Your task to perform on an android device: Open the calendar and show me this week's events? Image 0: 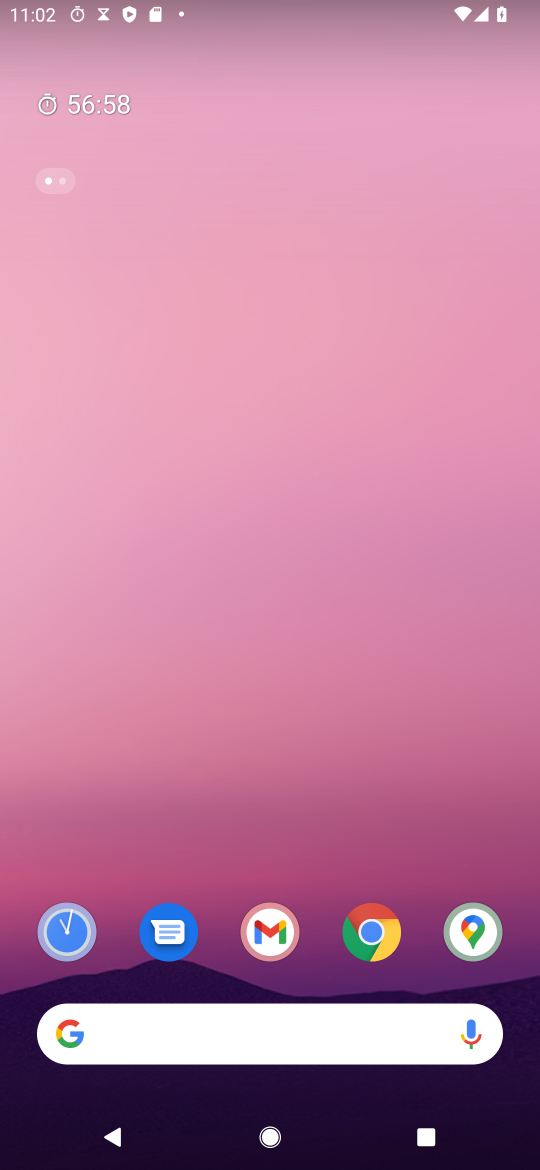
Step 0: drag from (449, 810) to (455, 13)
Your task to perform on an android device: Open the calendar and show me this week's events? Image 1: 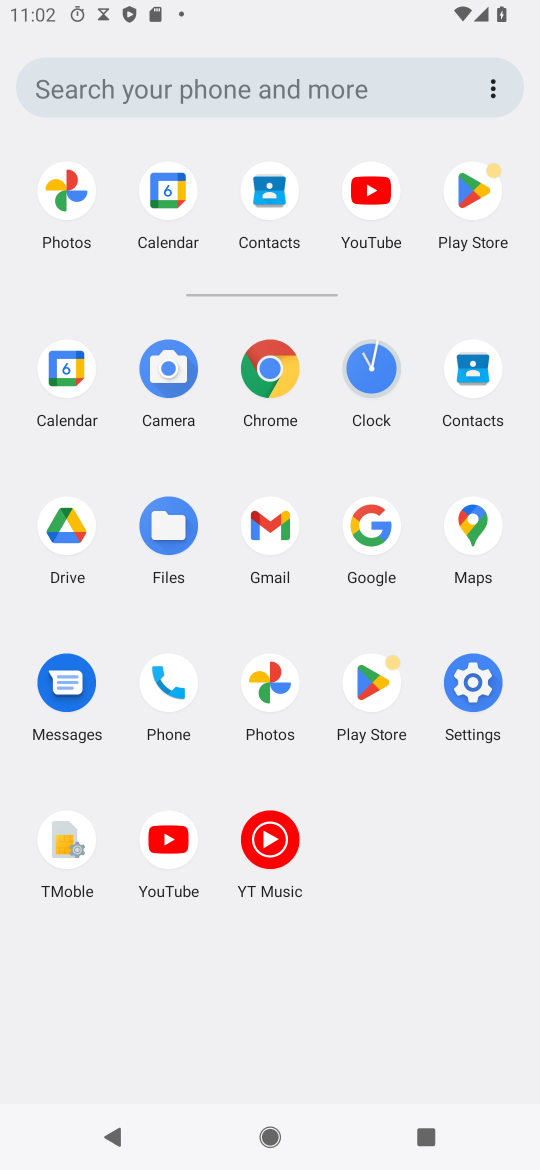
Step 1: click (65, 377)
Your task to perform on an android device: Open the calendar and show me this week's events? Image 2: 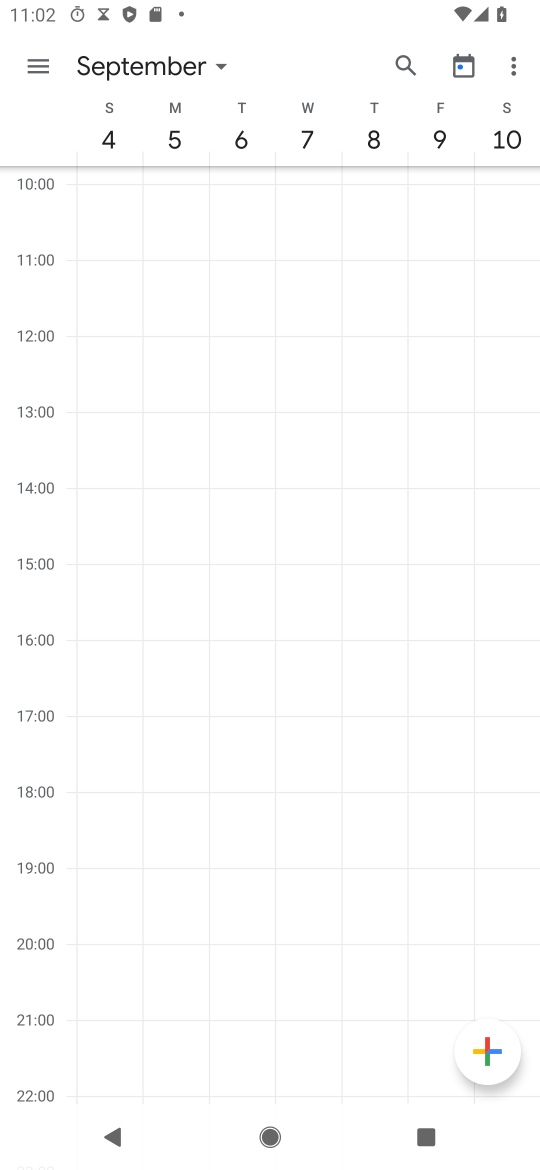
Step 2: click (33, 62)
Your task to perform on an android device: Open the calendar and show me this week's events? Image 3: 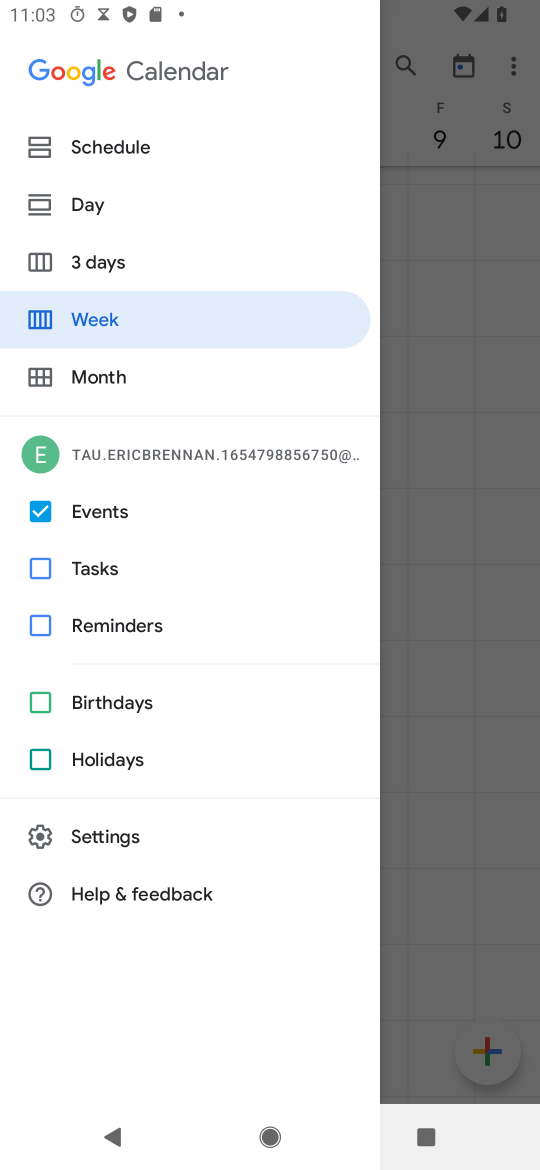
Step 3: click (92, 303)
Your task to perform on an android device: Open the calendar and show me this week's events? Image 4: 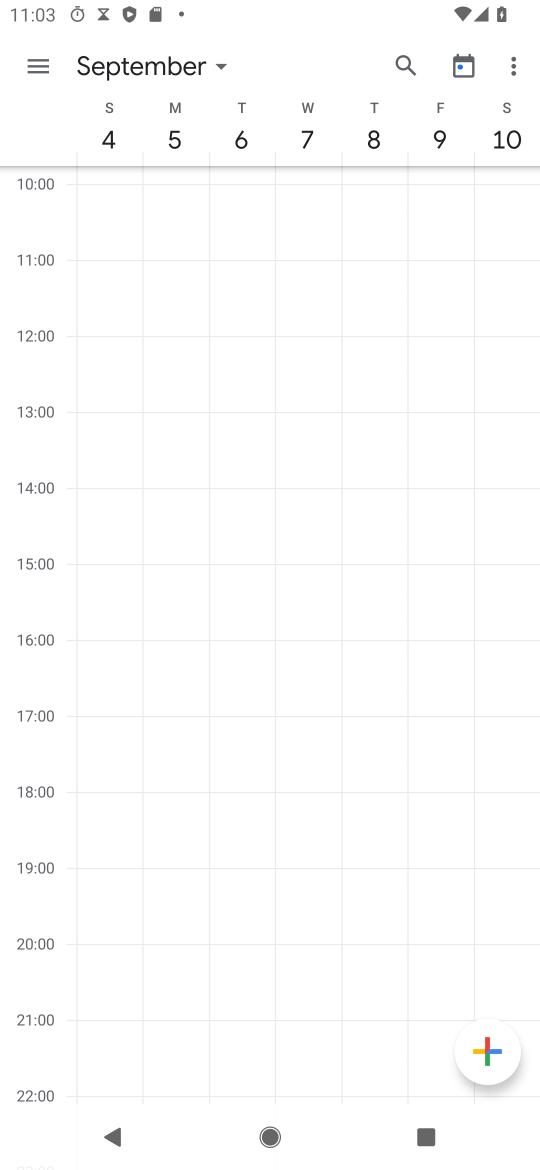
Step 4: click (182, 63)
Your task to perform on an android device: Open the calendar and show me this week's events? Image 5: 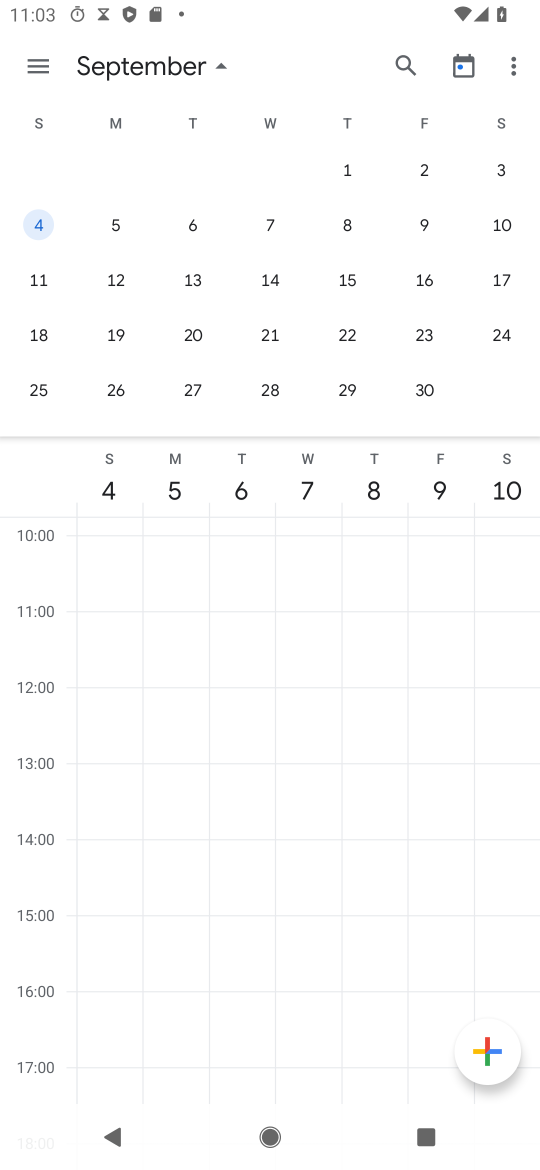
Step 5: drag from (85, 223) to (519, 472)
Your task to perform on an android device: Open the calendar and show me this week's events? Image 6: 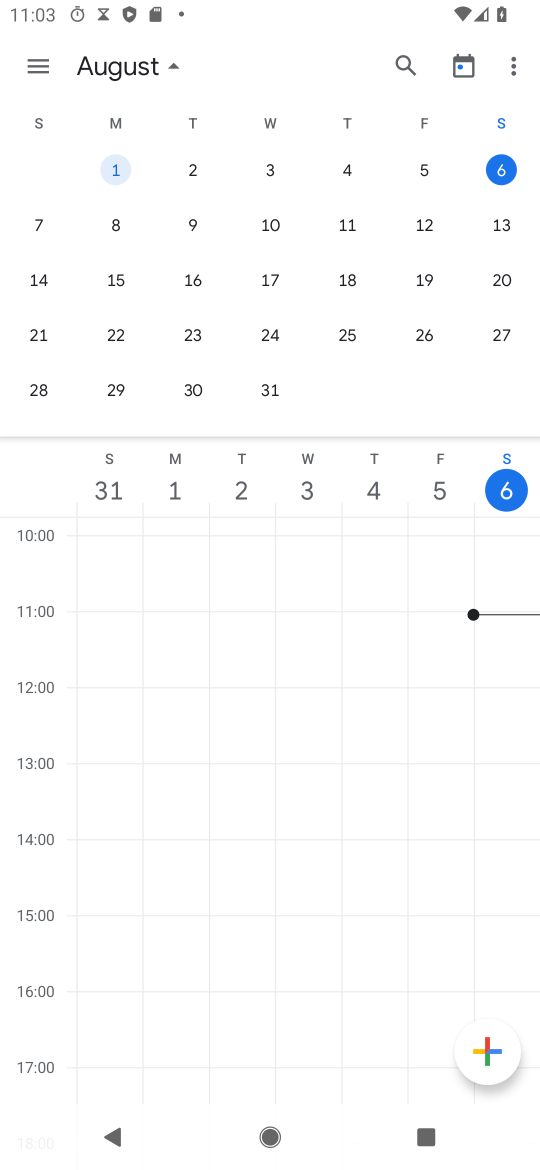
Step 6: click (500, 164)
Your task to perform on an android device: Open the calendar and show me this week's events? Image 7: 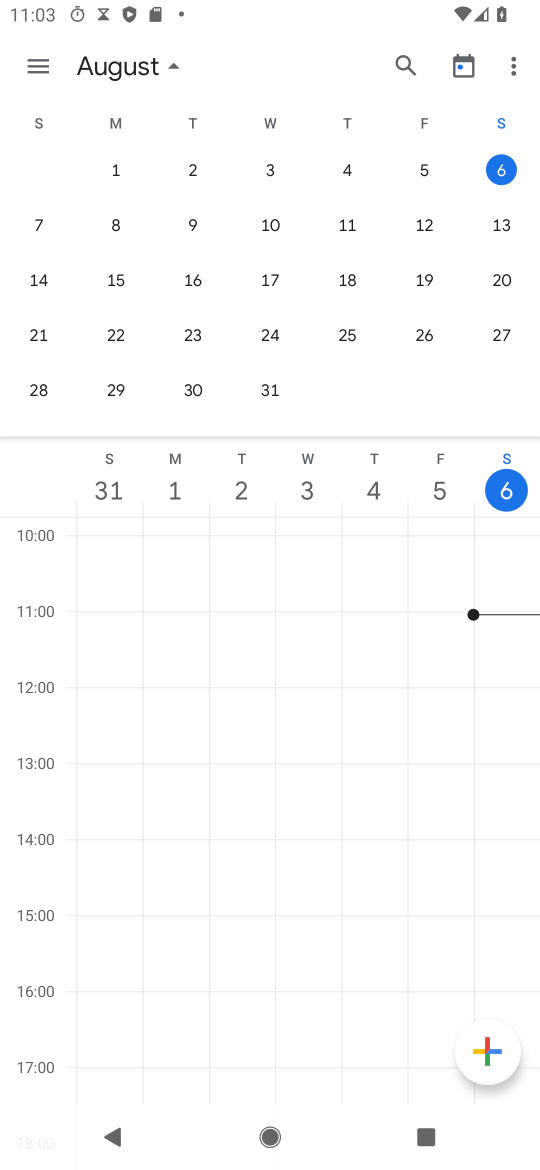
Step 7: task complete